Your task to perform on an android device: find which apps use the phone's location Image 0: 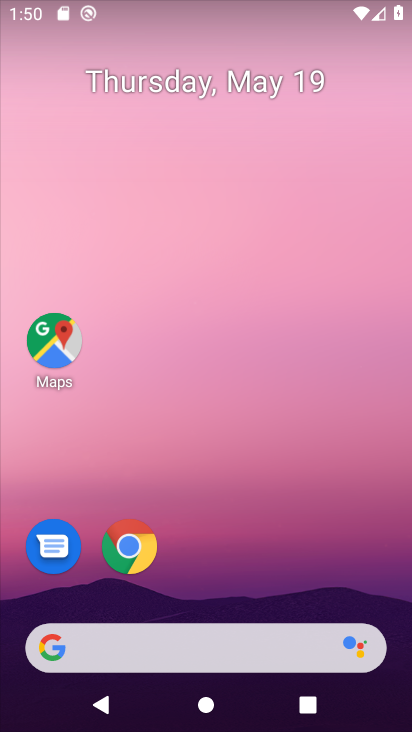
Step 0: press home button
Your task to perform on an android device: find which apps use the phone's location Image 1: 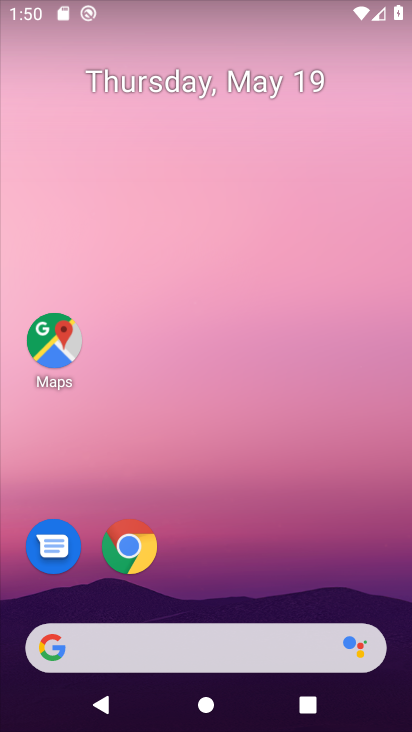
Step 1: drag from (204, 597) to (231, 1)
Your task to perform on an android device: find which apps use the phone's location Image 2: 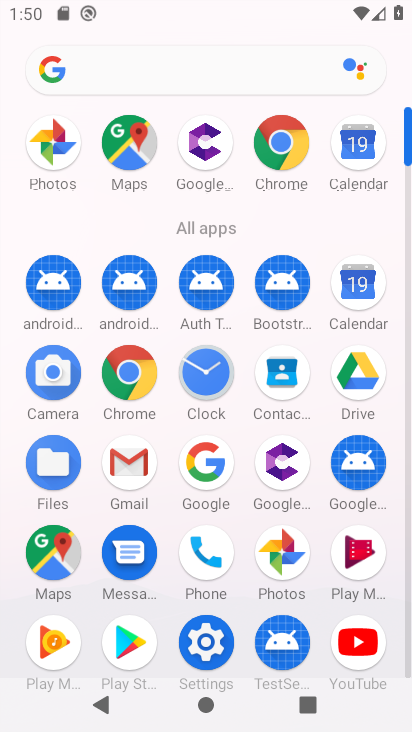
Step 2: click (204, 630)
Your task to perform on an android device: find which apps use the phone's location Image 3: 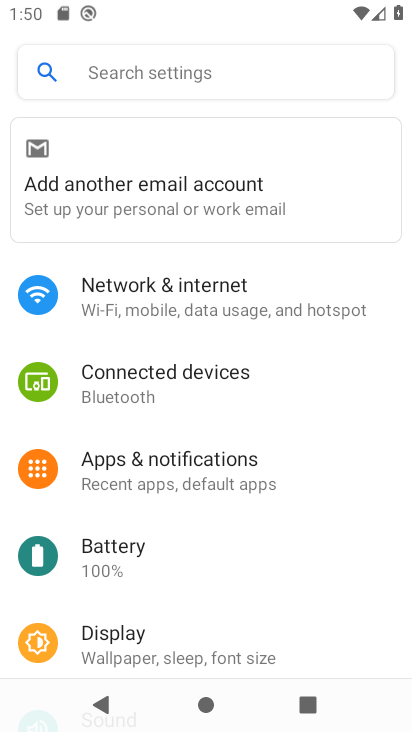
Step 3: drag from (185, 620) to (181, 120)
Your task to perform on an android device: find which apps use the phone's location Image 4: 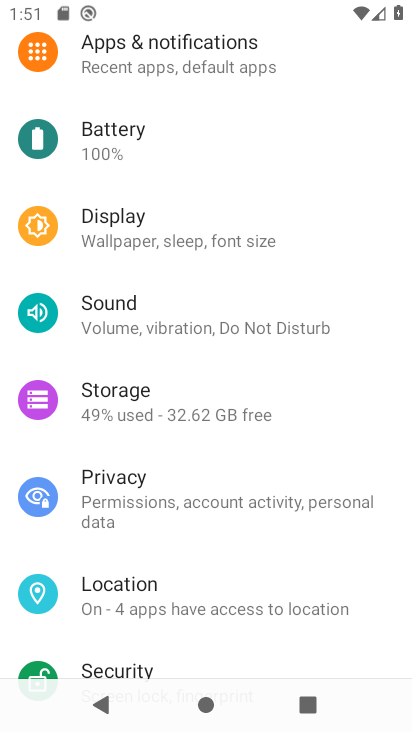
Step 4: click (187, 591)
Your task to perform on an android device: find which apps use the phone's location Image 5: 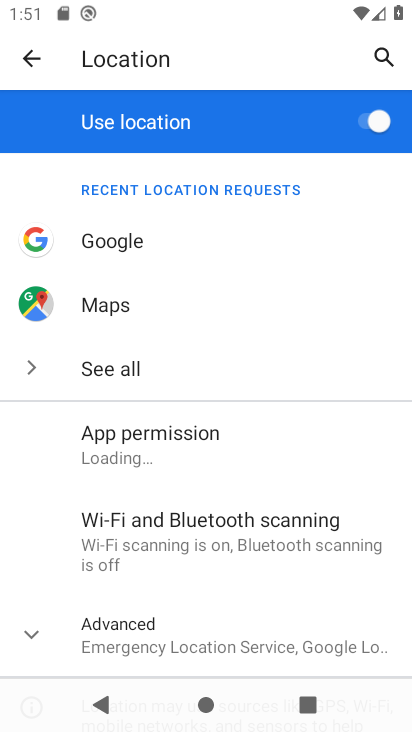
Step 5: click (37, 634)
Your task to perform on an android device: find which apps use the phone's location Image 6: 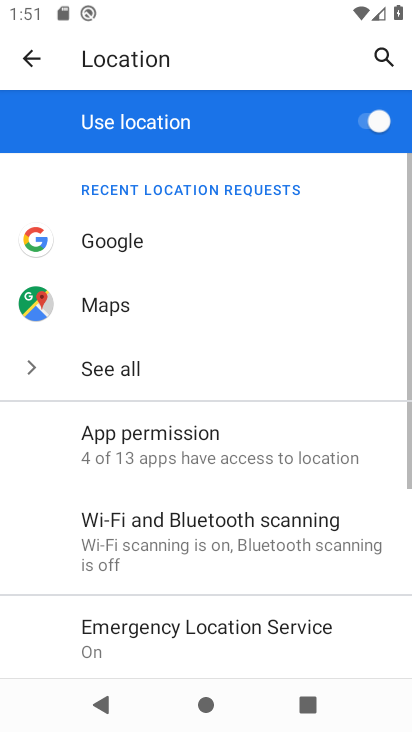
Step 6: task complete